Your task to perform on an android device: turn smart compose on in the gmail app Image 0: 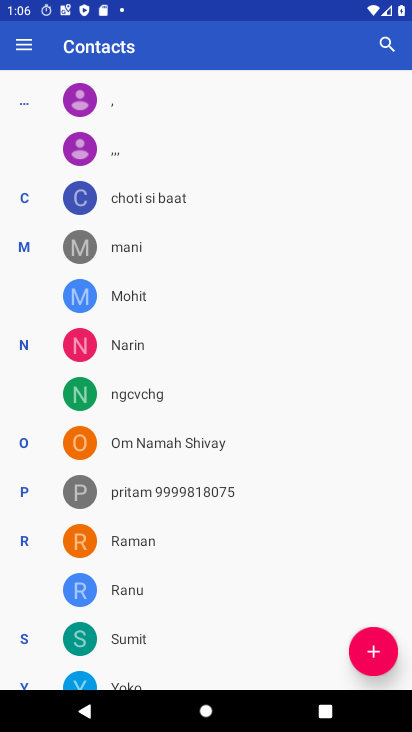
Step 0: press home button
Your task to perform on an android device: turn smart compose on in the gmail app Image 1: 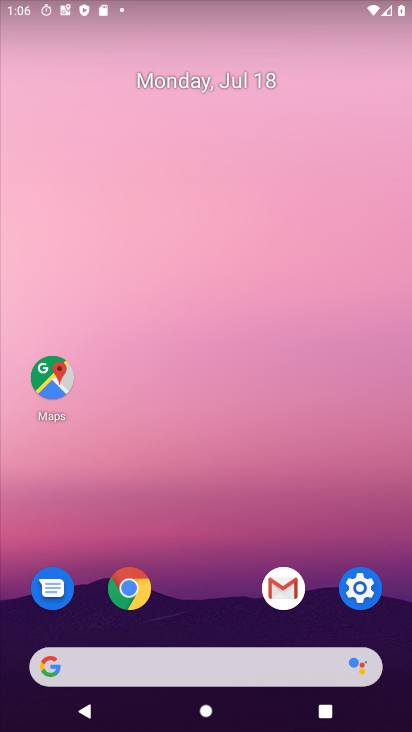
Step 1: click (286, 607)
Your task to perform on an android device: turn smart compose on in the gmail app Image 2: 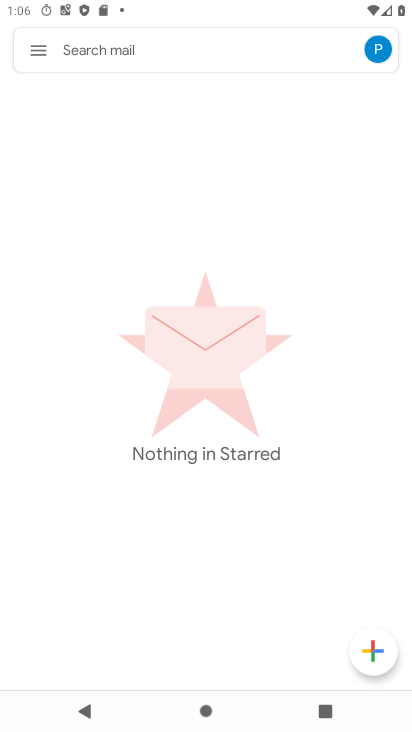
Step 2: click (24, 49)
Your task to perform on an android device: turn smart compose on in the gmail app Image 3: 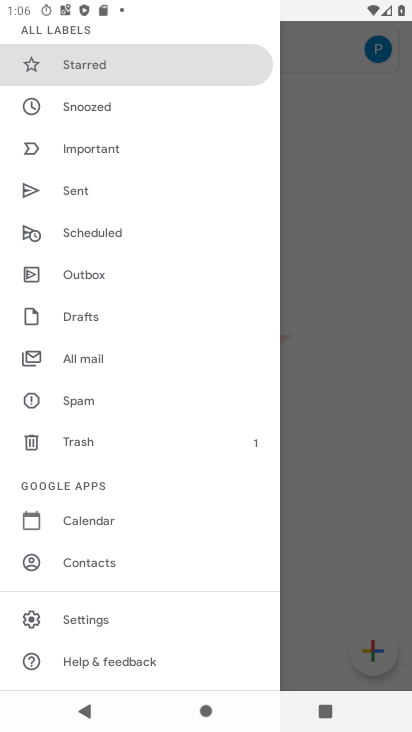
Step 3: click (77, 613)
Your task to perform on an android device: turn smart compose on in the gmail app Image 4: 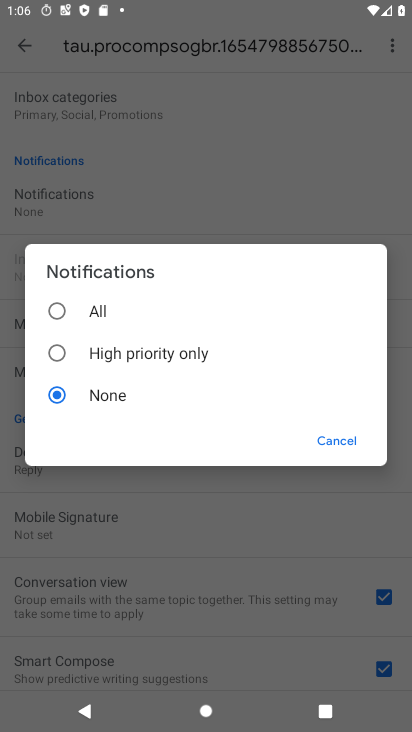
Step 4: click (317, 435)
Your task to perform on an android device: turn smart compose on in the gmail app Image 5: 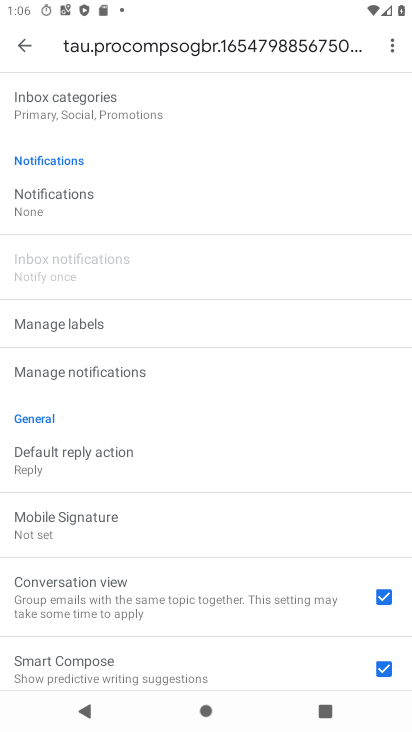
Step 5: drag from (196, 593) to (236, 428)
Your task to perform on an android device: turn smart compose on in the gmail app Image 6: 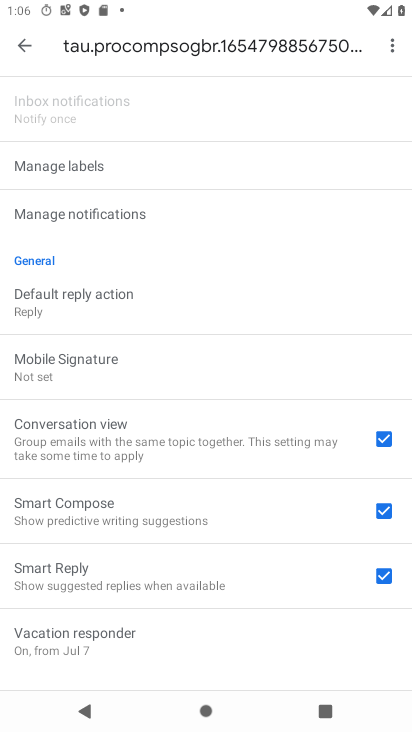
Step 6: click (378, 512)
Your task to perform on an android device: turn smart compose on in the gmail app Image 7: 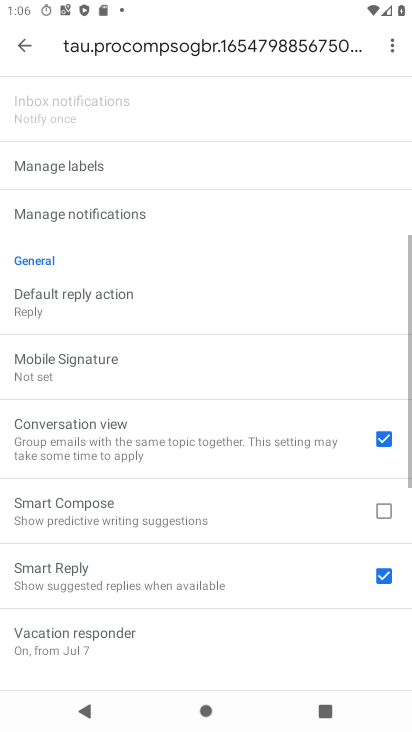
Step 7: click (378, 512)
Your task to perform on an android device: turn smart compose on in the gmail app Image 8: 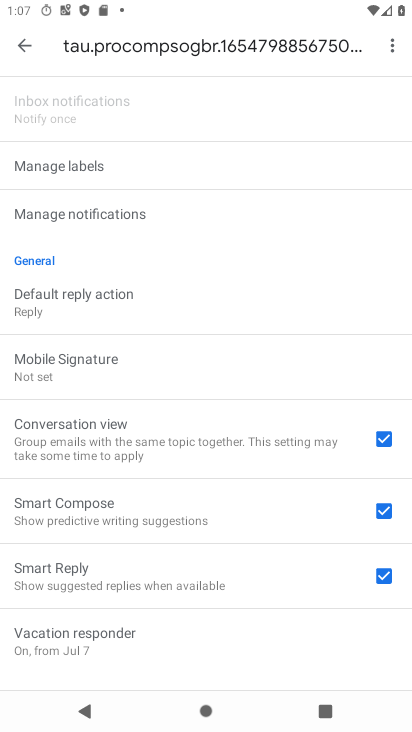
Step 8: task complete